Your task to perform on an android device: find photos in the google photos app Image 0: 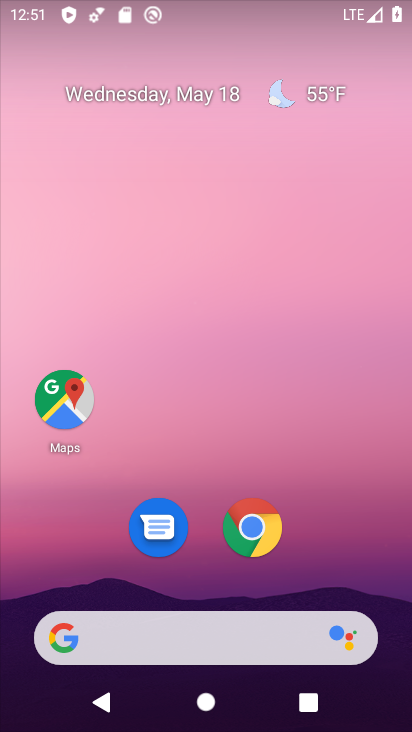
Step 0: drag from (331, 436) to (246, 29)
Your task to perform on an android device: find photos in the google photos app Image 1: 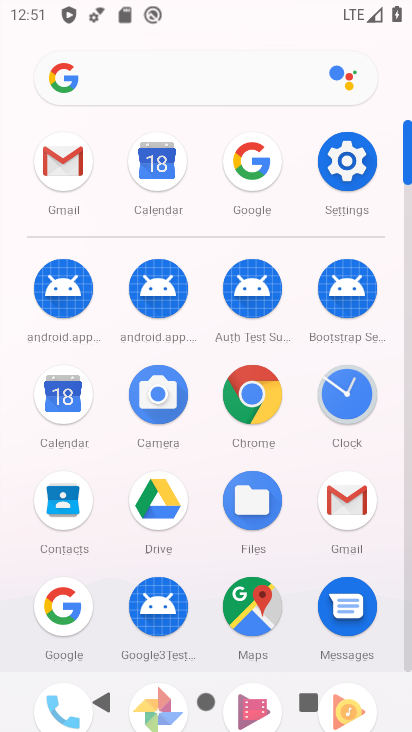
Step 1: drag from (221, 629) to (208, 197)
Your task to perform on an android device: find photos in the google photos app Image 2: 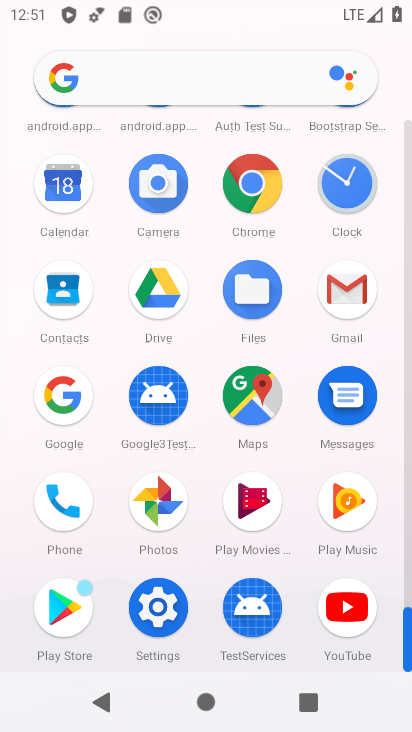
Step 2: click (158, 522)
Your task to perform on an android device: find photos in the google photos app Image 3: 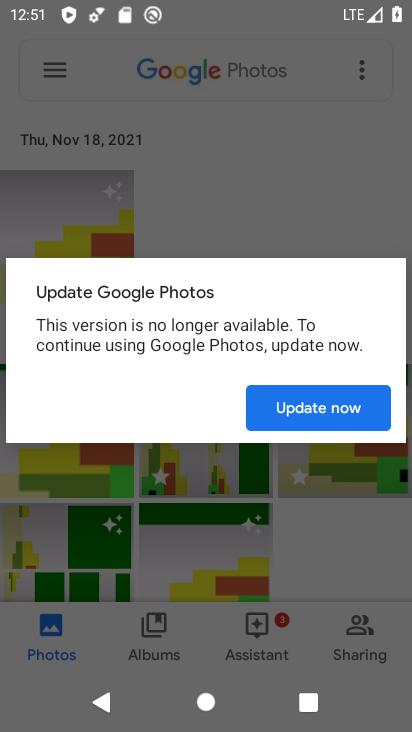
Step 3: click (319, 404)
Your task to perform on an android device: find photos in the google photos app Image 4: 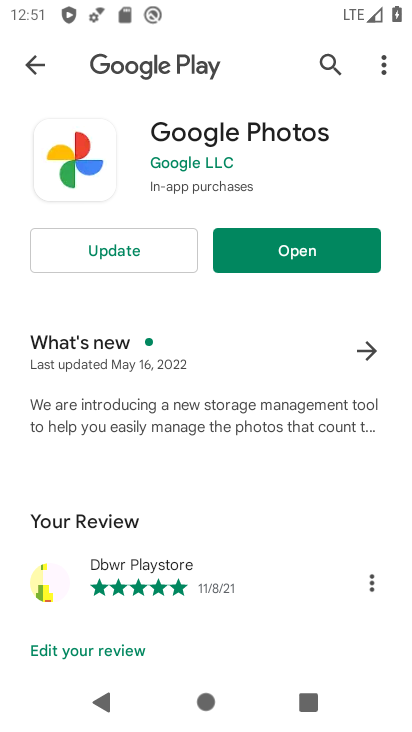
Step 4: click (128, 248)
Your task to perform on an android device: find photos in the google photos app Image 5: 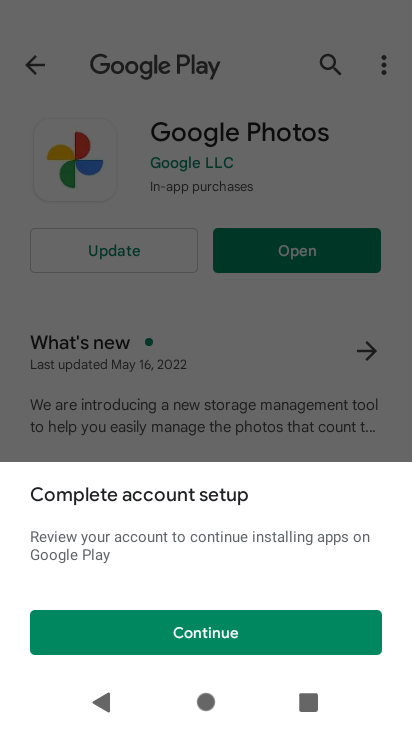
Step 5: click (269, 631)
Your task to perform on an android device: find photos in the google photos app Image 6: 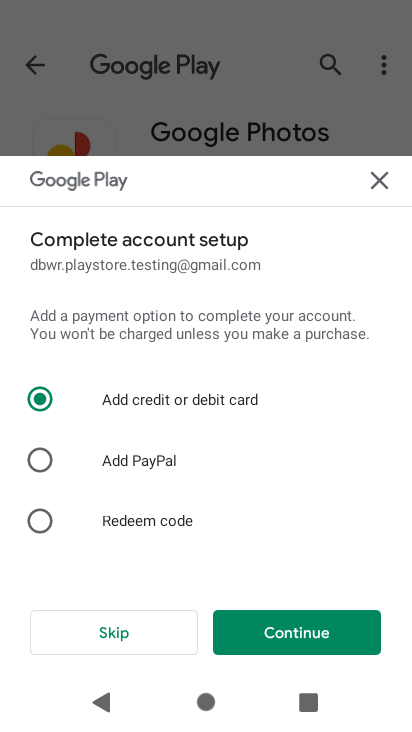
Step 6: click (378, 175)
Your task to perform on an android device: find photos in the google photos app Image 7: 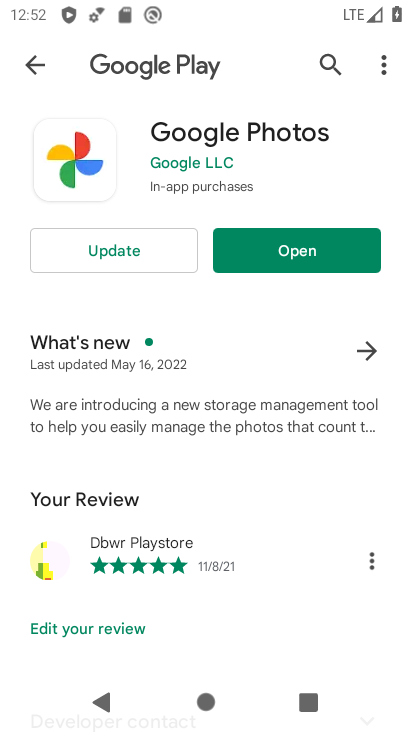
Step 7: click (333, 247)
Your task to perform on an android device: find photos in the google photos app Image 8: 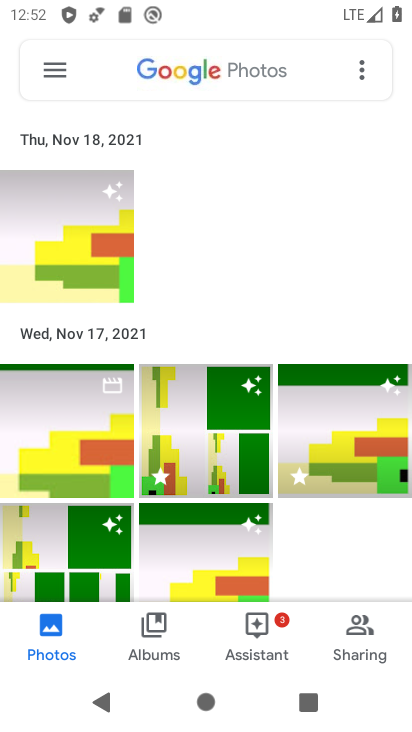
Step 8: task complete